Your task to perform on an android device: Go to settings Image 0: 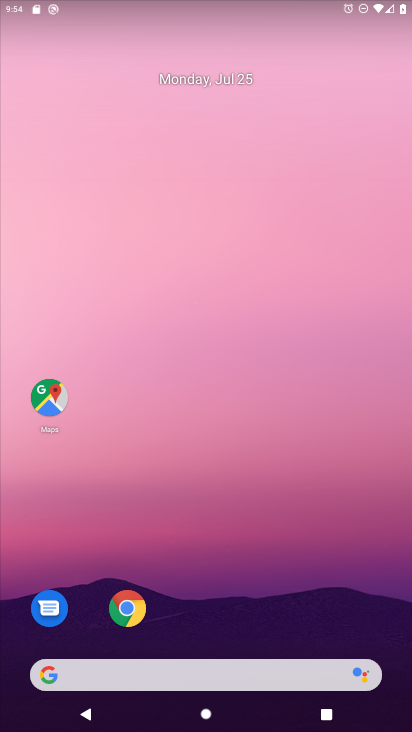
Step 0: drag from (151, 663) to (225, 23)
Your task to perform on an android device: Go to settings Image 1: 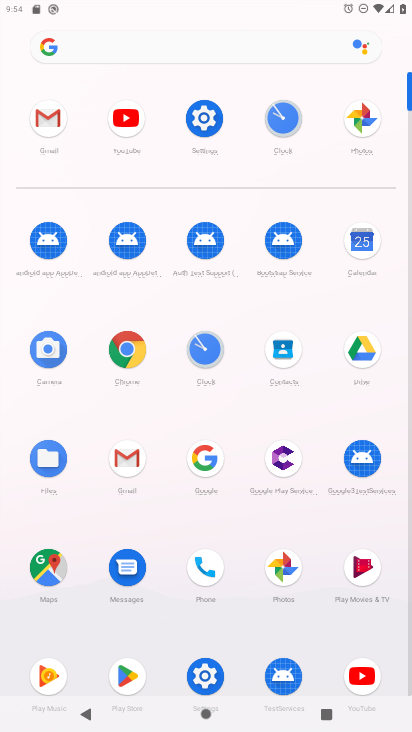
Step 1: click (197, 124)
Your task to perform on an android device: Go to settings Image 2: 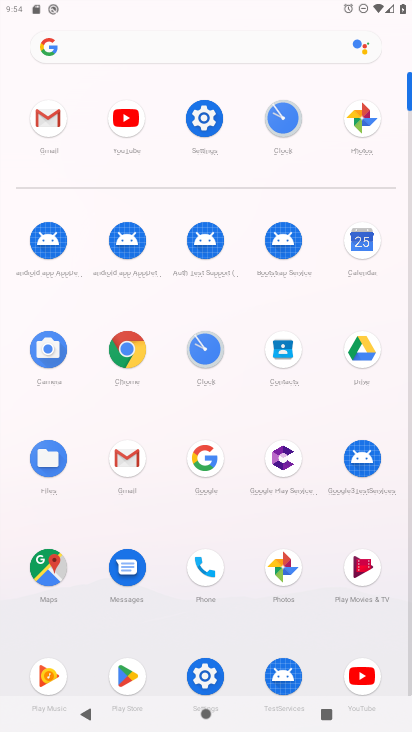
Step 2: click (197, 124)
Your task to perform on an android device: Go to settings Image 3: 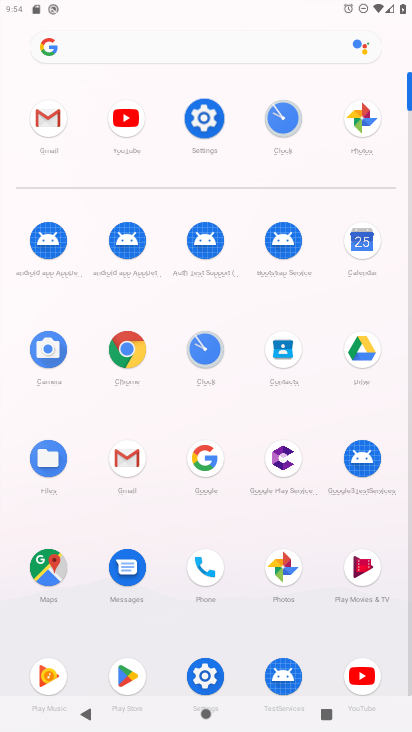
Step 3: click (197, 124)
Your task to perform on an android device: Go to settings Image 4: 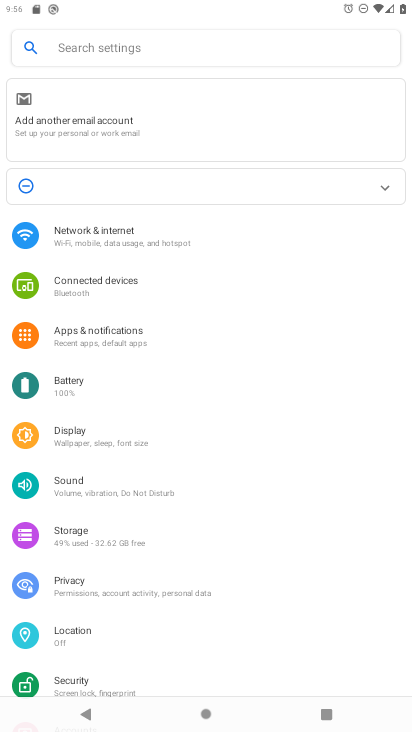
Step 4: task complete